Your task to perform on an android device: Go to location settings Image 0: 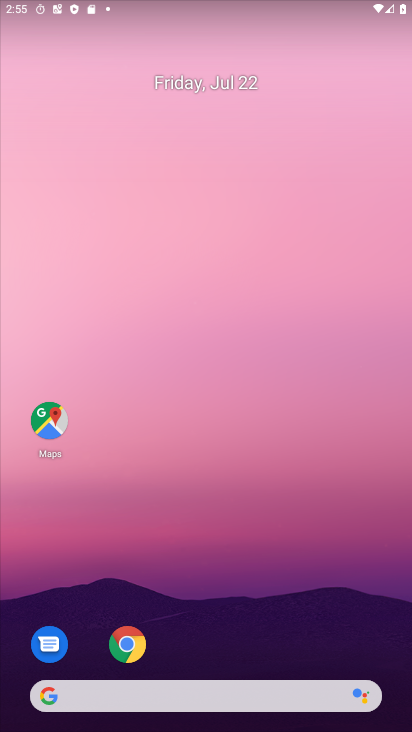
Step 0: press home button
Your task to perform on an android device: Go to location settings Image 1: 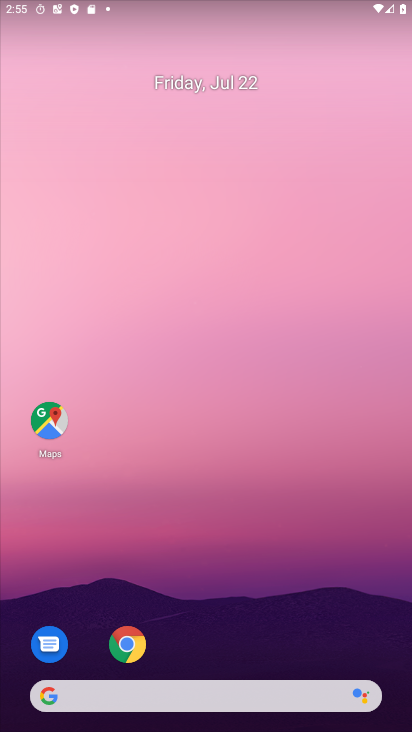
Step 1: drag from (227, 617) to (223, 110)
Your task to perform on an android device: Go to location settings Image 2: 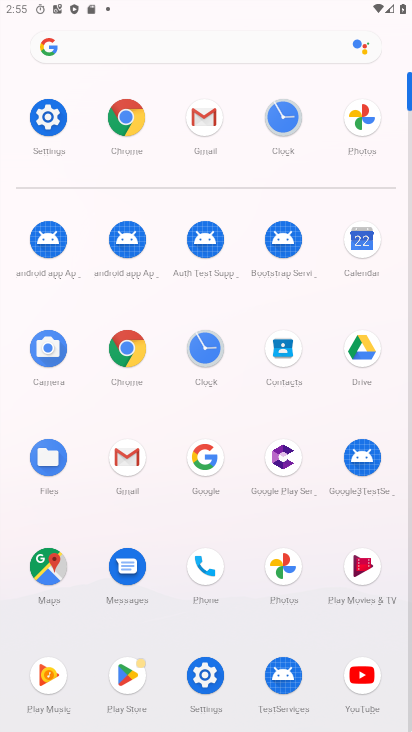
Step 2: click (42, 111)
Your task to perform on an android device: Go to location settings Image 3: 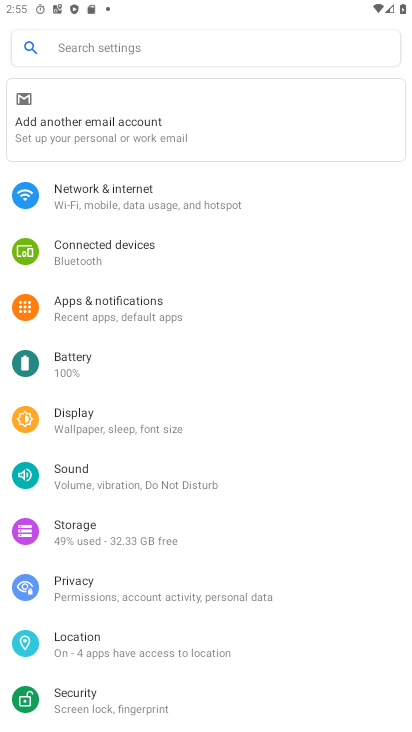
Step 3: click (88, 655)
Your task to perform on an android device: Go to location settings Image 4: 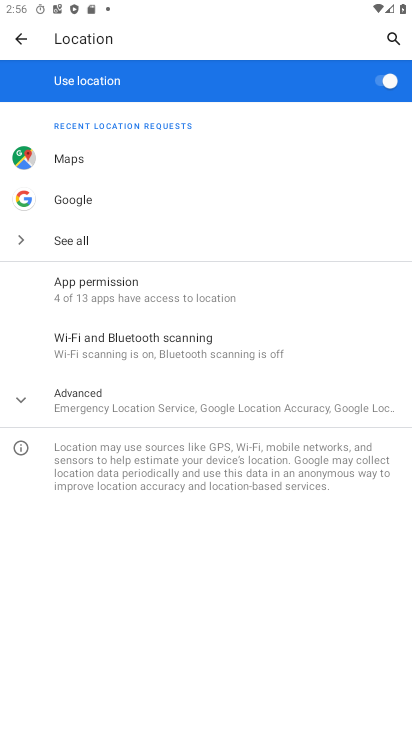
Step 4: task complete